Your task to perform on an android device: see creations saved in the google photos Image 0: 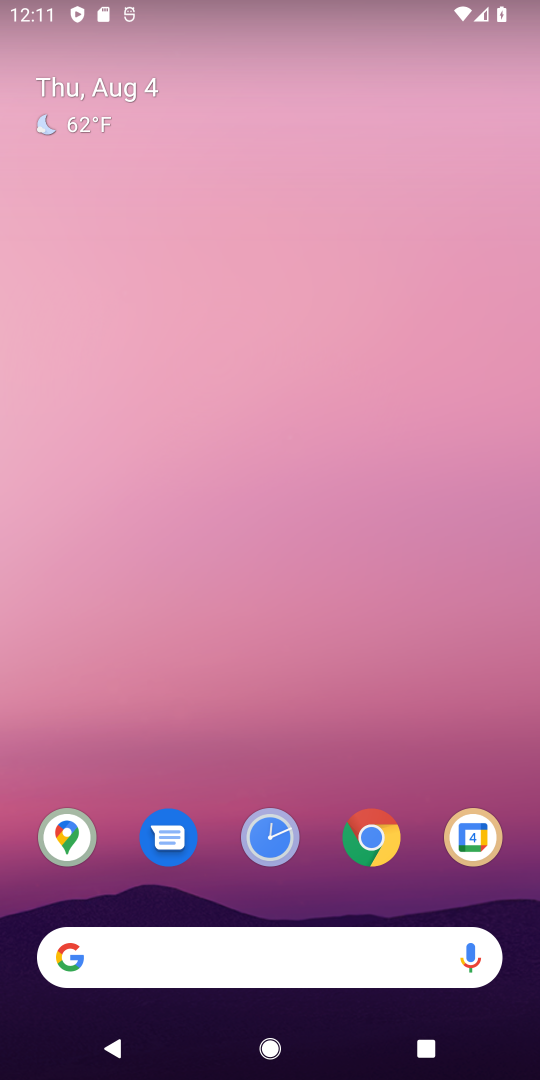
Step 0: drag from (318, 734) to (318, 135)
Your task to perform on an android device: see creations saved in the google photos Image 1: 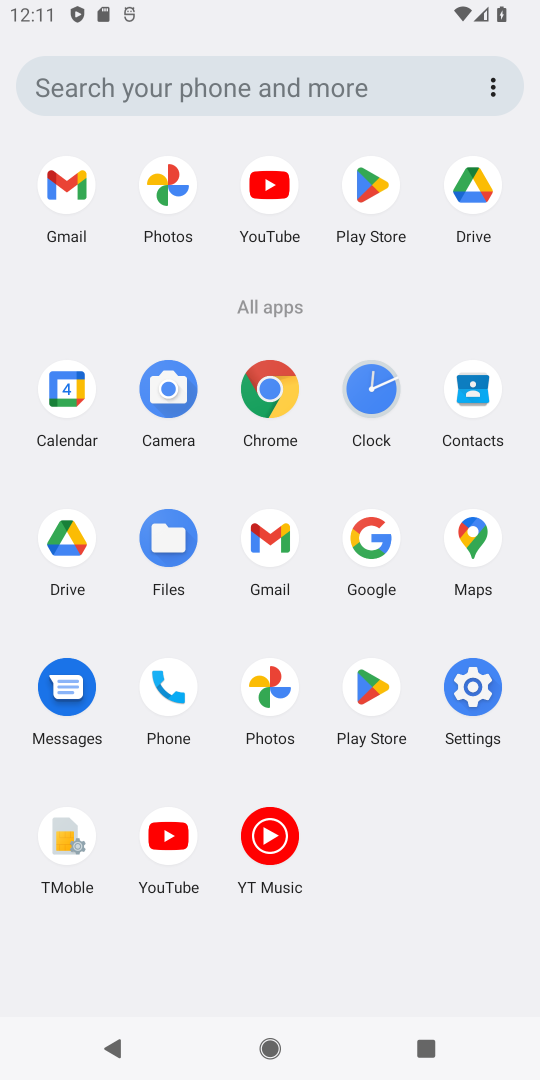
Step 1: click (267, 676)
Your task to perform on an android device: see creations saved in the google photos Image 2: 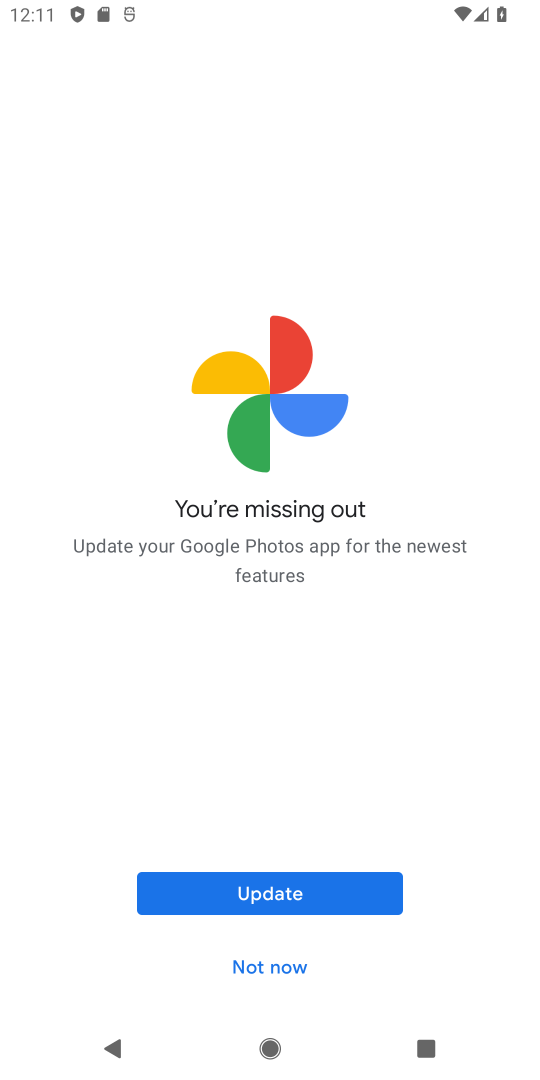
Step 2: click (301, 891)
Your task to perform on an android device: see creations saved in the google photos Image 3: 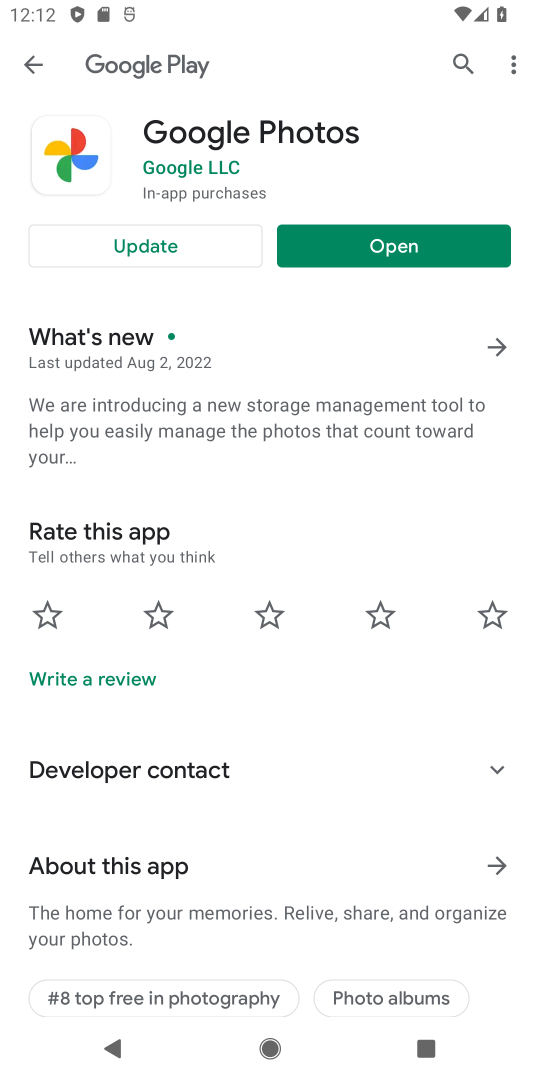
Step 3: click (245, 242)
Your task to perform on an android device: see creations saved in the google photos Image 4: 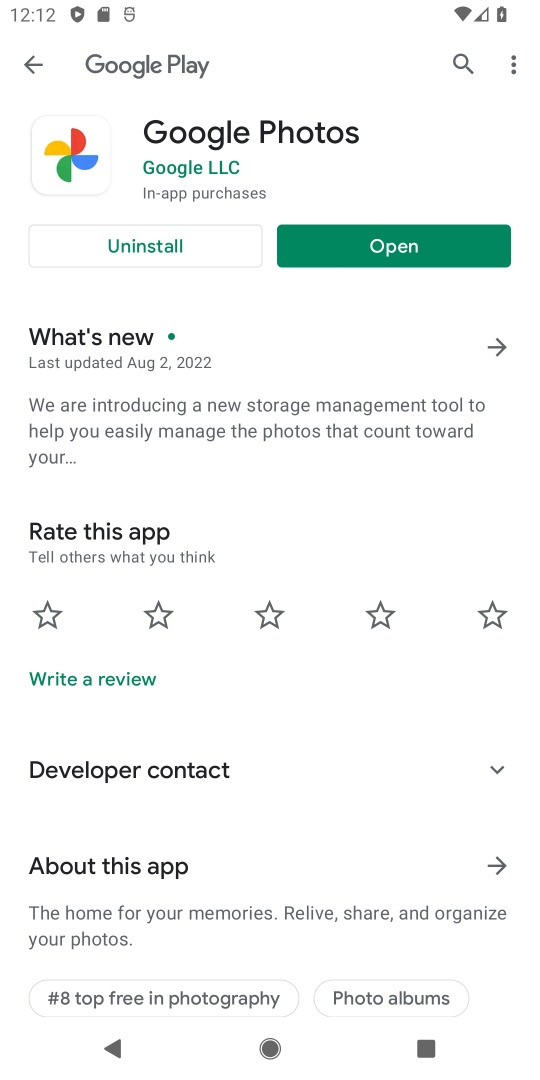
Step 4: click (313, 239)
Your task to perform on an android device: see creations saved in the google photos Image 5: 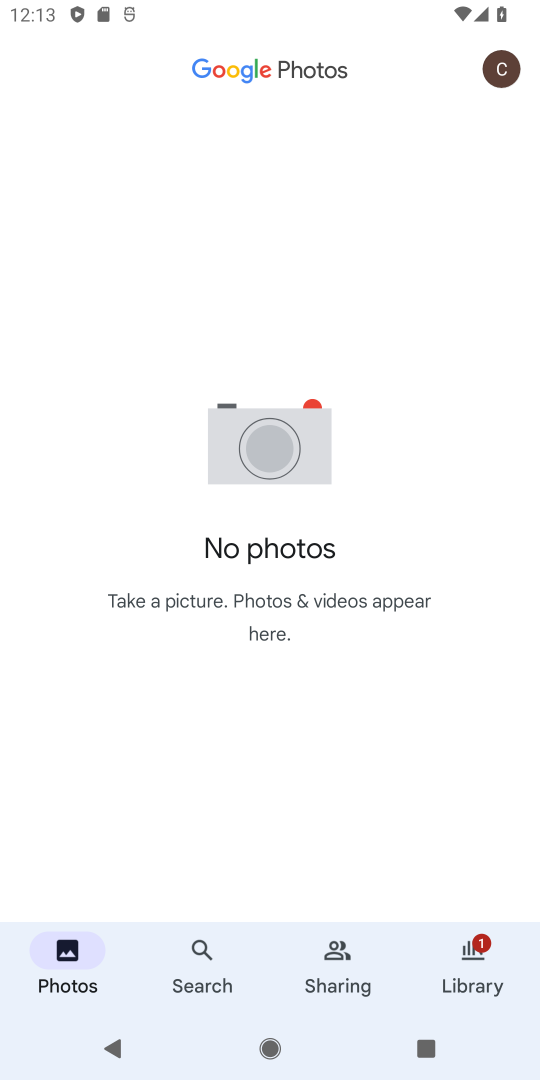
Step 5: click (196, 965)
Your task to perform on an android device: see creations saved in the google photos Image 6: 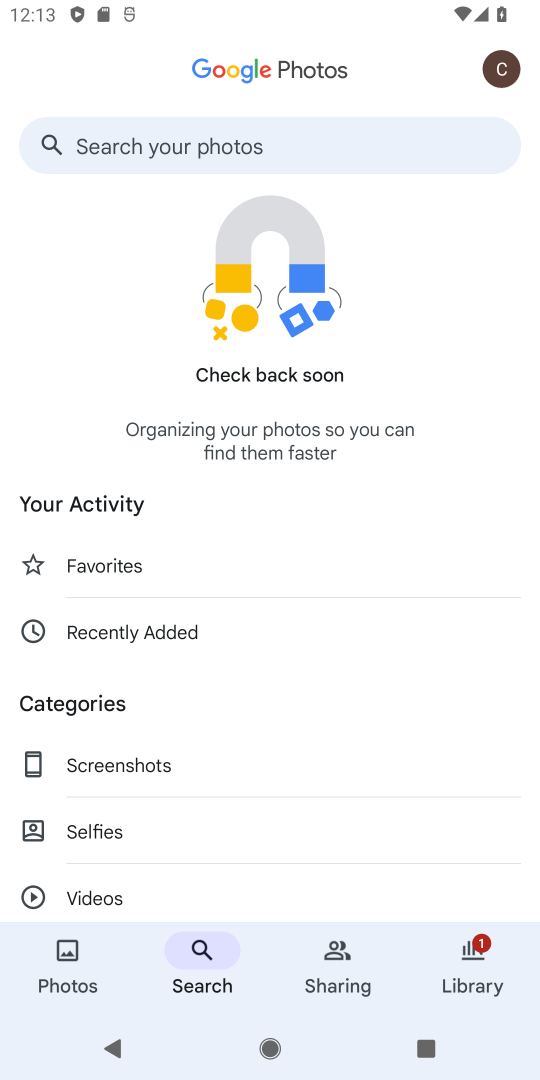
Step 6: drag from (162, 791) to (172, 193)
Your task to perform on an android device: see creations saved in the google photos Image 7: 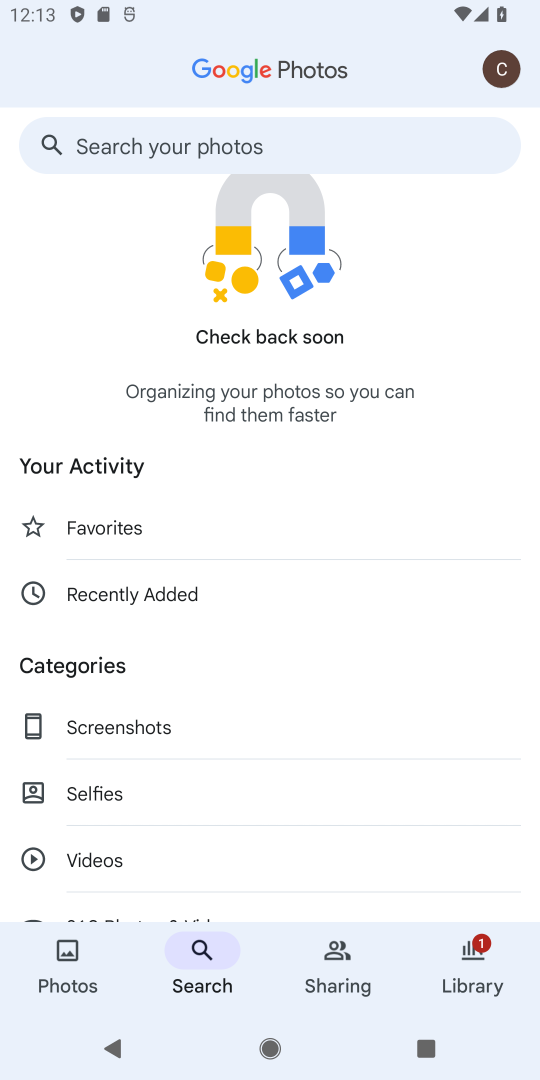
Step 7: drag from (187, 751) to (154, 131)
Your task to perform on an android device: see creations saved in the google photos Image 8: 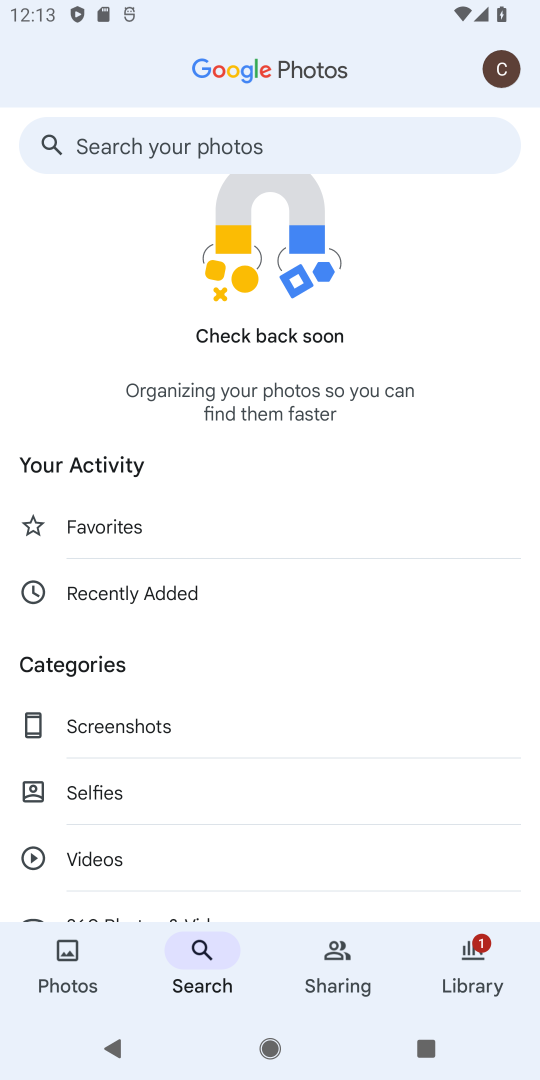
Step 8: drag from (134, 633) to (167, 31)
Your task to perform on an android device: see creations saved in the google photos Image 9: 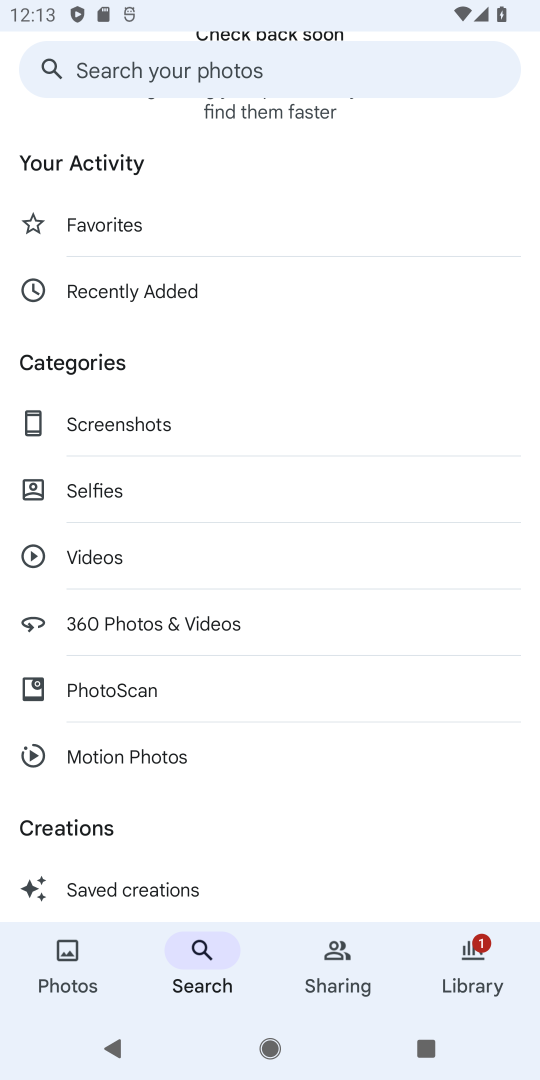
Step 9: click (166, 876)
Your task to perform on an android device: see creations saved in the google photos Image 10: 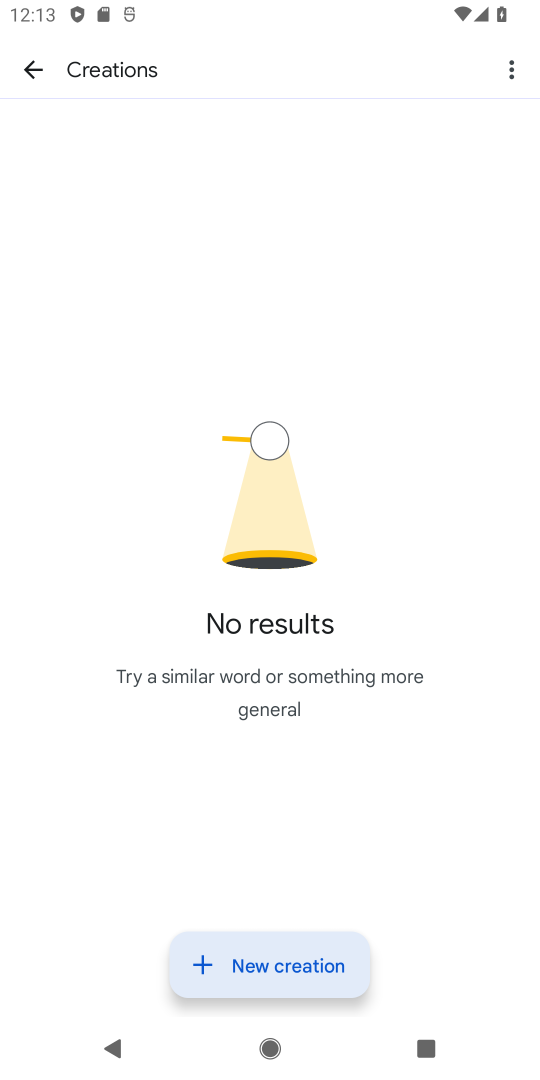
Step 10: task complete